Your task to perform on an android device: Show me productivity apps on the Play Store Image 0: 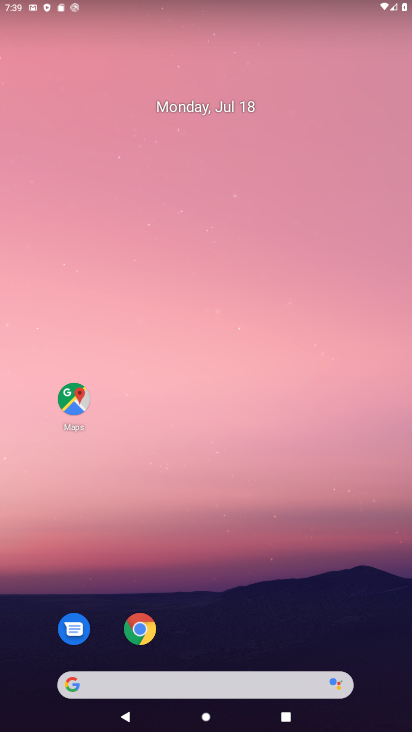
Step 0: drag from (214, 589) to (234, 195)
Your task to perform on an android device: Show me productivity apps on the Play Store Image 1: 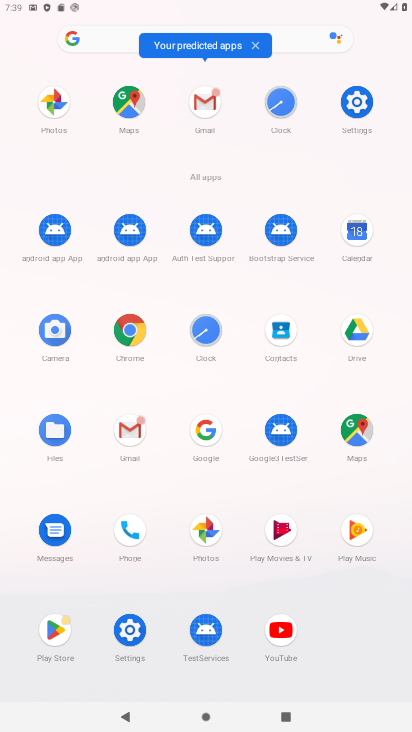
Step 1: click (62, 631)
Your task to perform on an android device: Show me productivity apps on the Play Store Image 2: 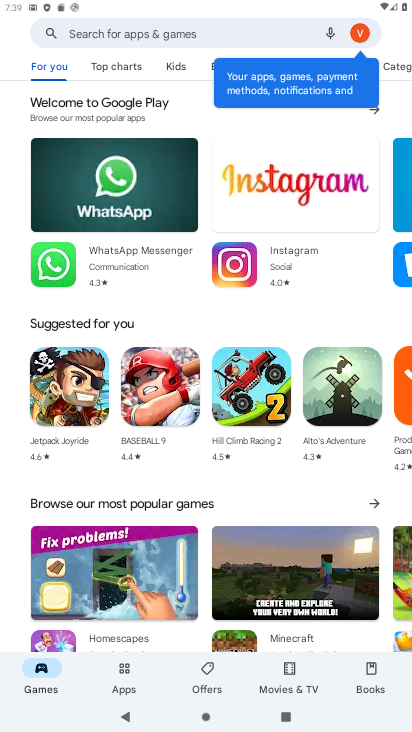
Step 2: click (119, 669)
Your task to perform on an android device: Show me productivity apps on the Play Store Image 3: 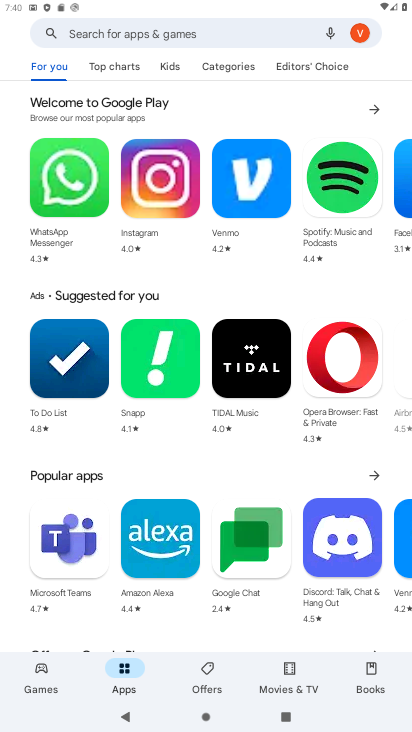
Step 3: click (232, 68)
Your task to perform on an android device: Show me productivity apps on the Play Store Image 4: 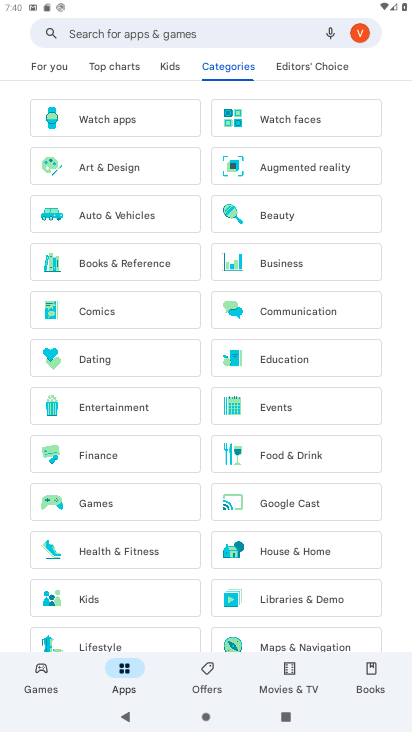
Step 4: drag from (194, 526) to (249, 122)
Your task to perform on an android device: Show me productivity apps on the Play Store Image 5: 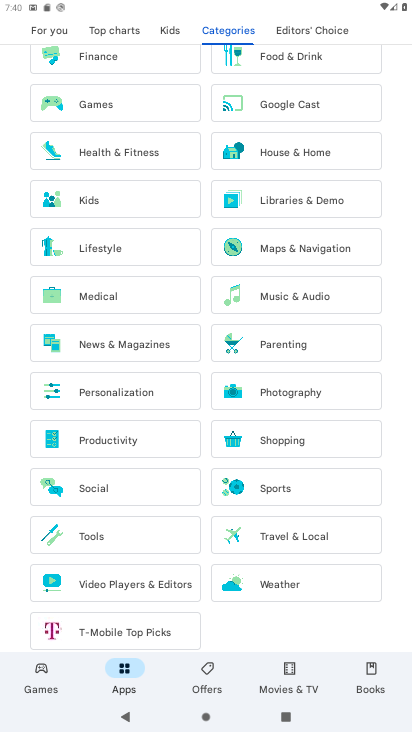
Step 5: drag from (156, 558) to (189, 359)
Your task to perform on an android device: Show me productivity apps on the Play Store Image 6: 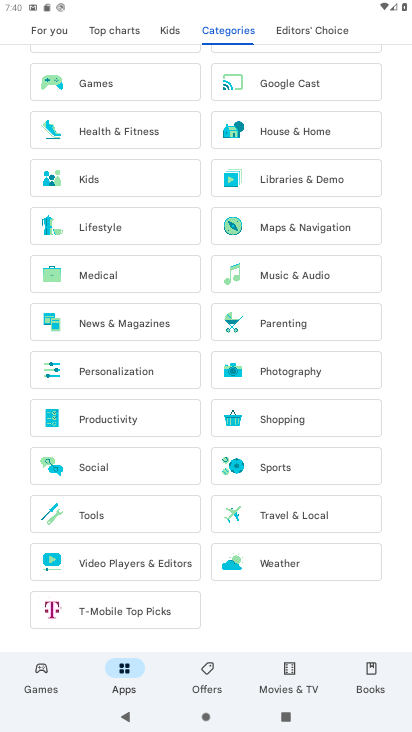
Step 6: click (114, 416)
Your task to perform on an android device: Show me productivity apps on the Play Store Image 7: 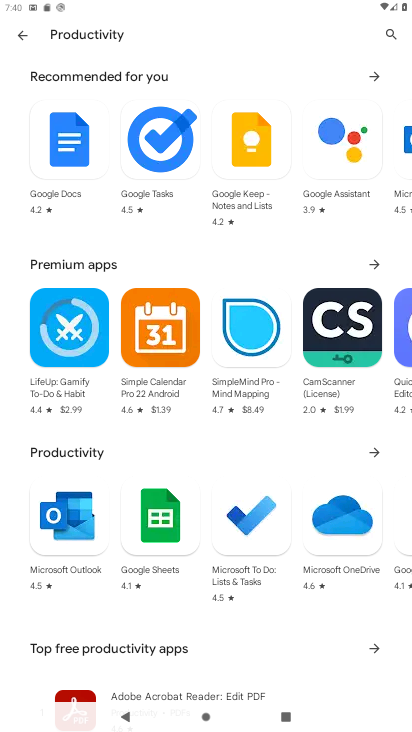
Step 7: task complete